Your task to perform on an android device: check android version Image 0: 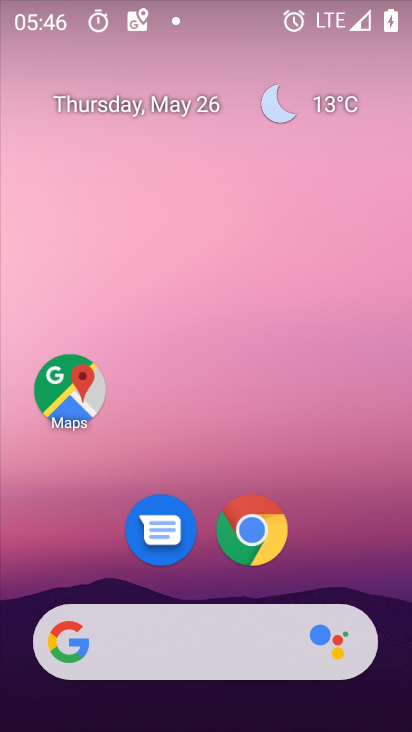
Step 0: drag from (180, 679) to (256, 3)
Your task to perform on an android device: check android version Image 1: 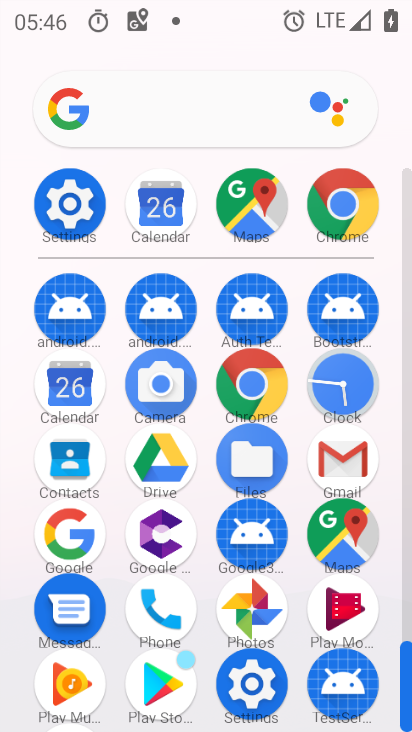
Step 1: click (85, 204)
Your task to perform on an android device: check android version Image 2: 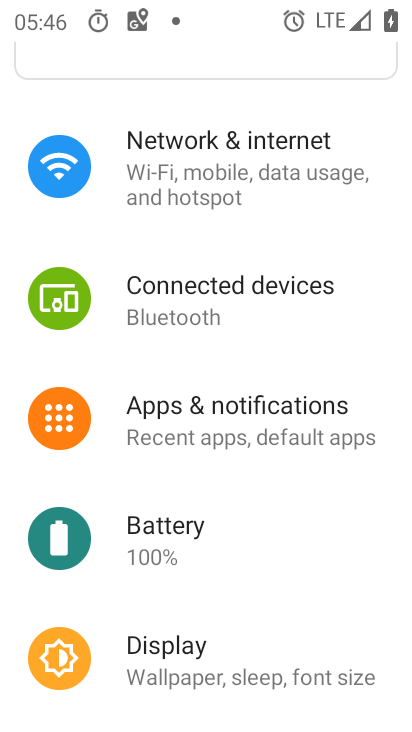
Step 2: drag from (275, 650) to (238, 7)
Your task to perform on an android device: check android version Image 3: 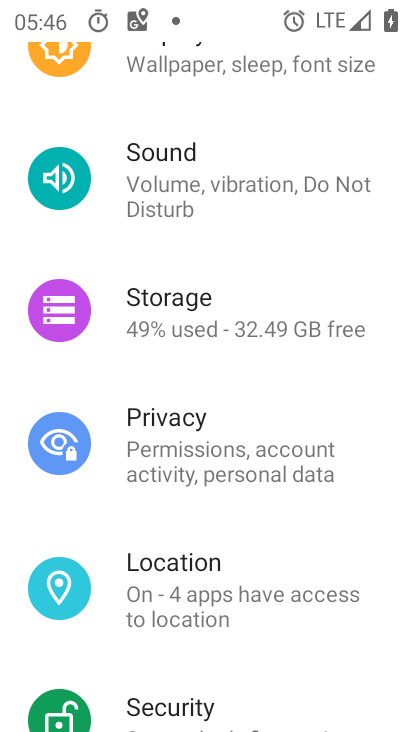
Step 3: drag from (267, 658) to (278, 178)
Your task to perform on an android device: check android version Image 4: 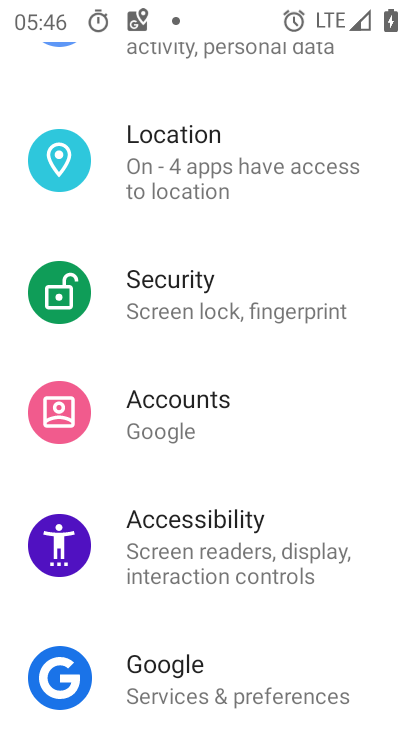
Step 4: drag from (238, 646) to (305, 121)
Your task to perform on an android device: check android version Image 5: 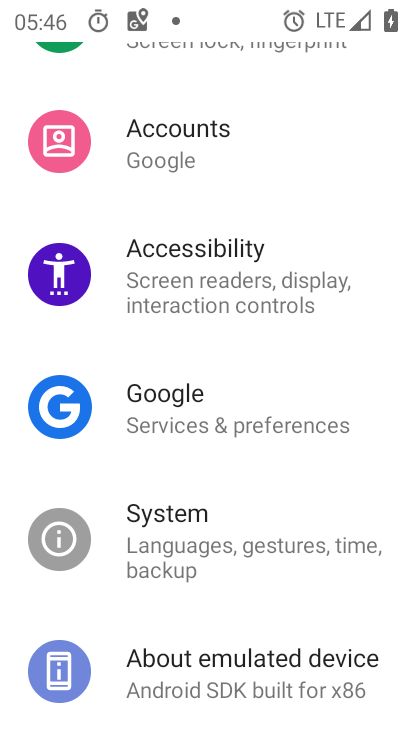
Step 5: click (216, 687)
Your task to perform on an android device: check android version Image 6: 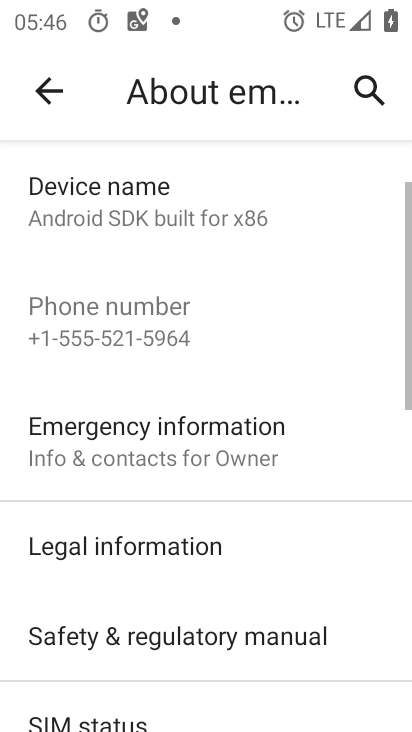
Step 6: drag from (260, 660) to (299, 39)
Your task to perform on an android device: check android version Image 7: 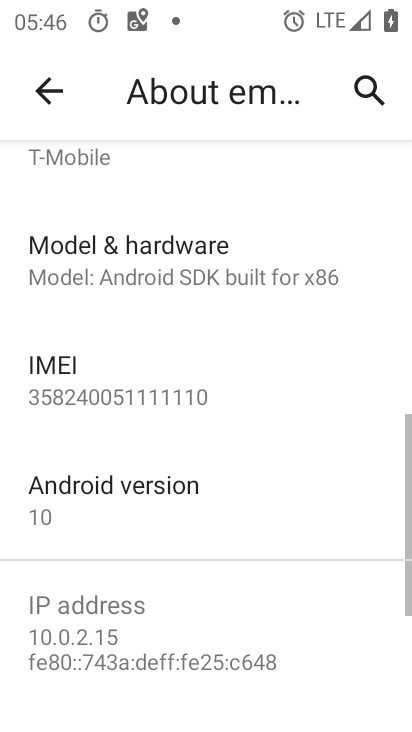
Step 7: click (164, 492)
Your task to perform on an android device: check android version Image 8: 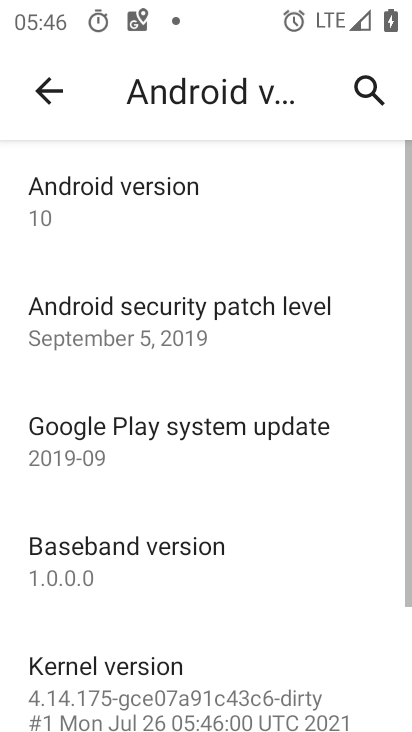
Step 8: task complete